Your task to perform on an android device: empty trash in google photos Image 0: 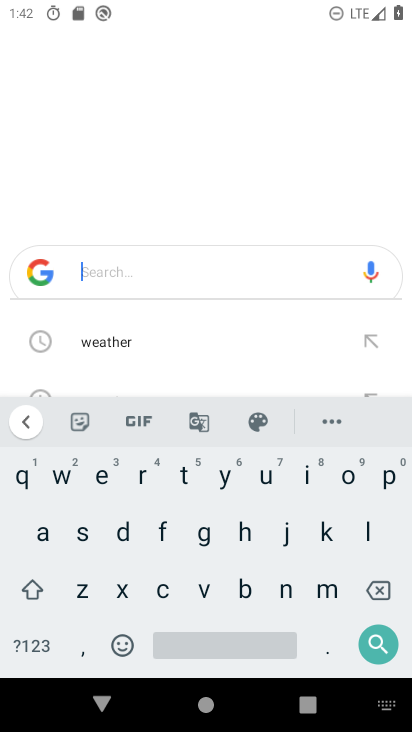
Step 0: press home button
Your task to perform on an android device: empty trash in google photos Image 1: 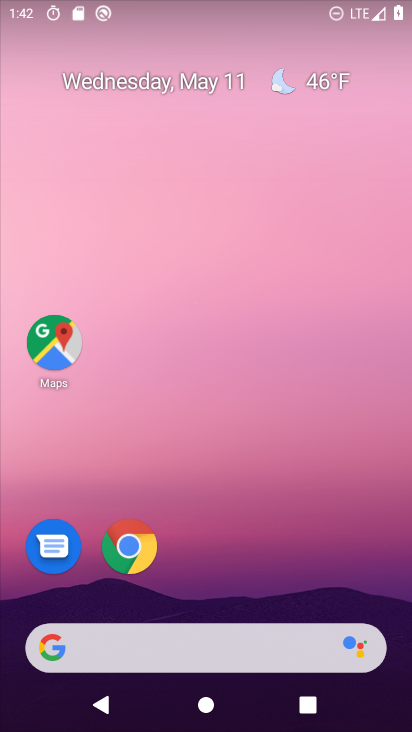
Step 1: drag from (270, 674) to (202, 256)
Your task to perform on an android device: empty trash in google photos Image 2: 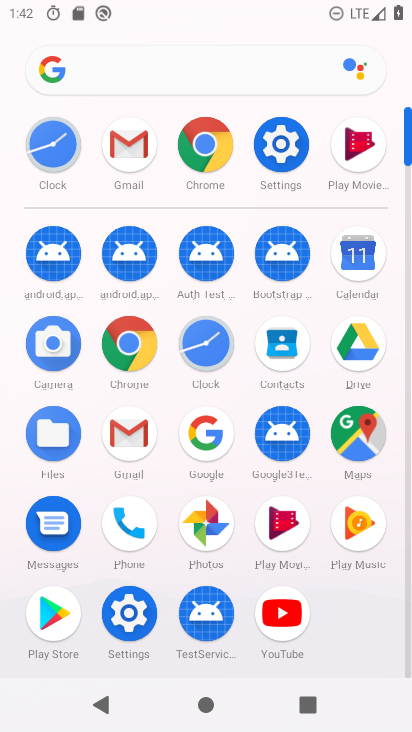
Step 2: click (212, 509)
Your task to perform on an android device: empty trash in google photos Image 3: 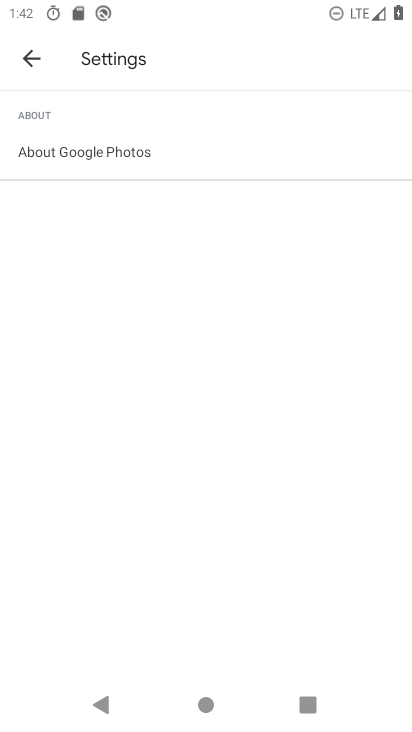
Step 3: click (36, 64)
Your task to perform on an android device: empty trash in google photos Image 4: 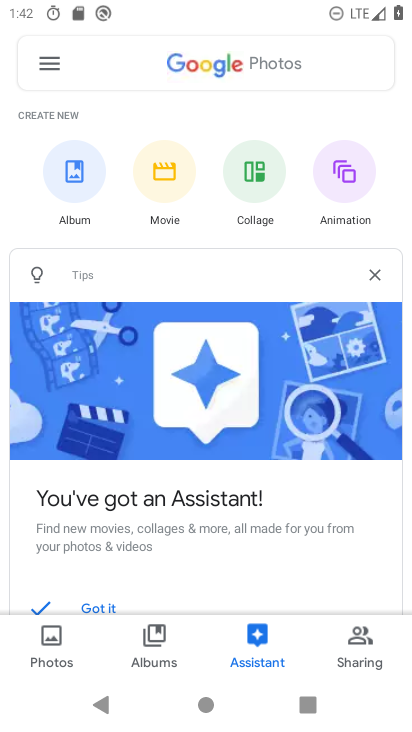
Step 4: click (57, 68)
Your task to perform on an android device: empty trash in google photos Image 5: 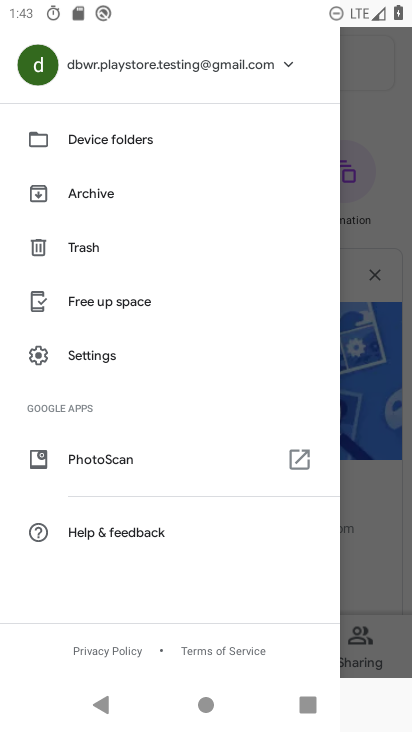
Step 5: click (101, 257)
Your task to perform on an android device: empty trash in google photos Image 6: 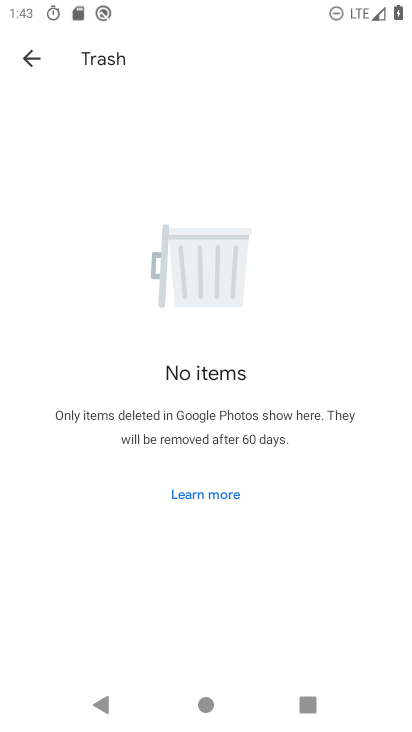
Step 6: task complete